Your task to perform on an android device: Open internet settings Image 0: 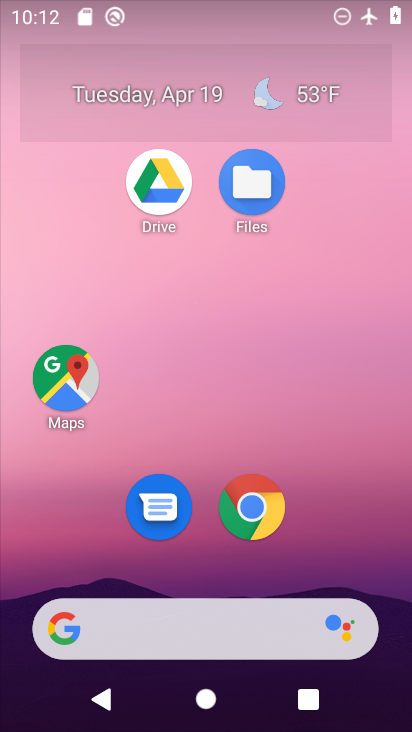
Step 0: drag from (353, 545) to (356, 124)
Your task to perform on an android device: Open internet settings Image 1: 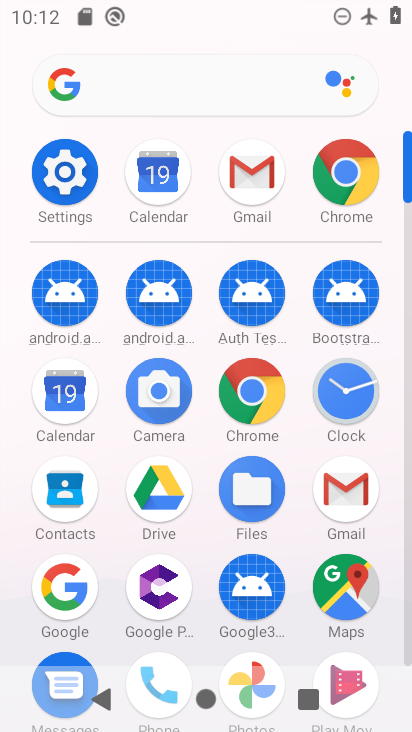
Step 1: click (70, 186)
Your task to perform on an android device: Open internet settings Image 2: 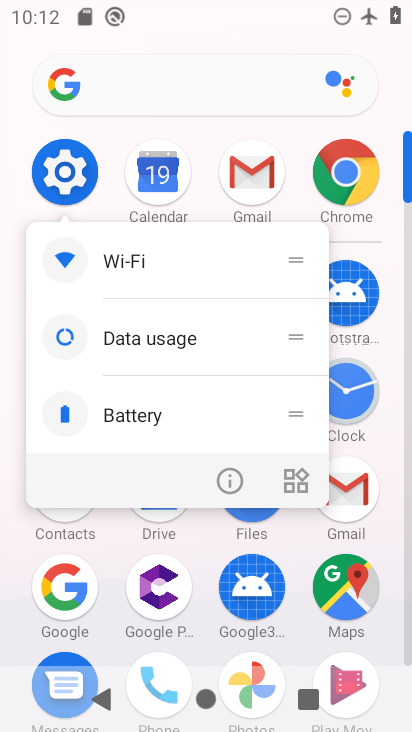
Step 2: click (70, 189)
Your task to perform on an android device: Open internet settings Image 3: 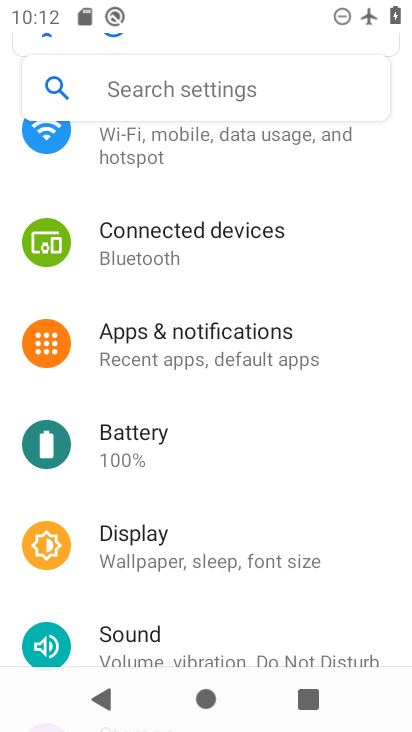
Step 3: drag from (227, 287) to (246, 508)
Your task to perform on an android device: Open internet settings Image 4: 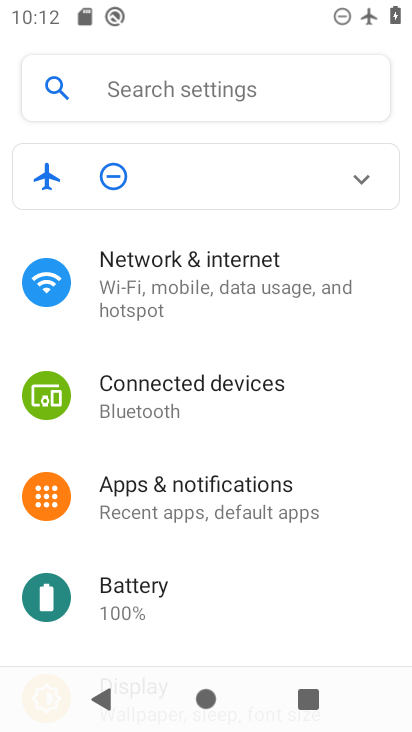
Step 4: click (239, 283)
Your task to perform on an android device: Open internet settings Image 5: 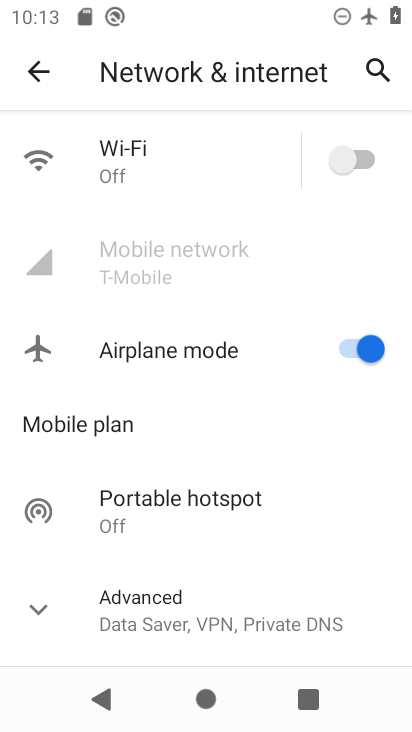
Step 5: task complete